Your task to perform on an android device: choose inbox layout in the gmail app Image 0: 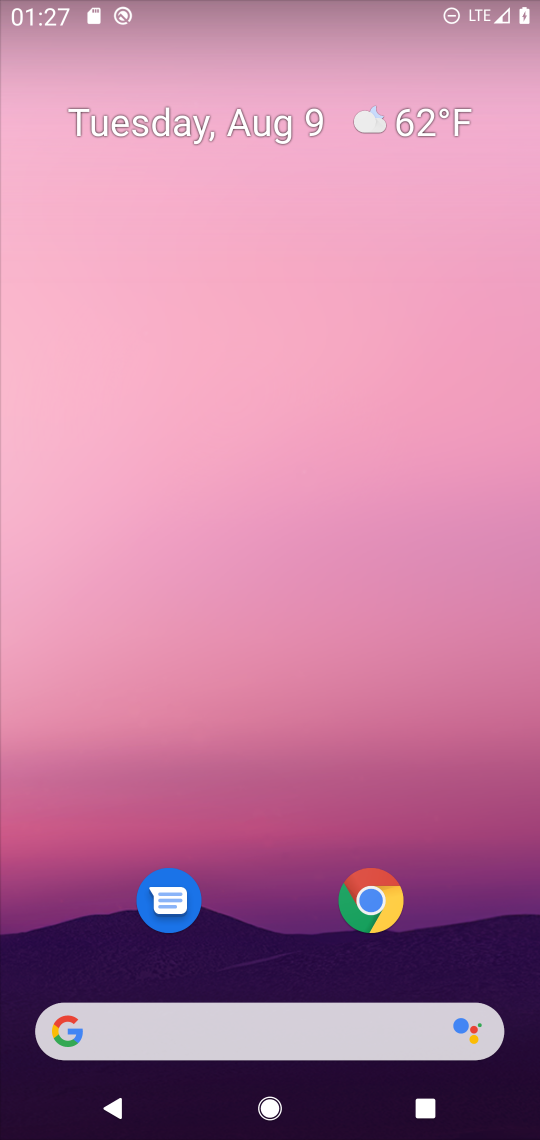
Step 0: press home button
Your task to perform on an android device: choose inbox layout in the gmail app Image 1: 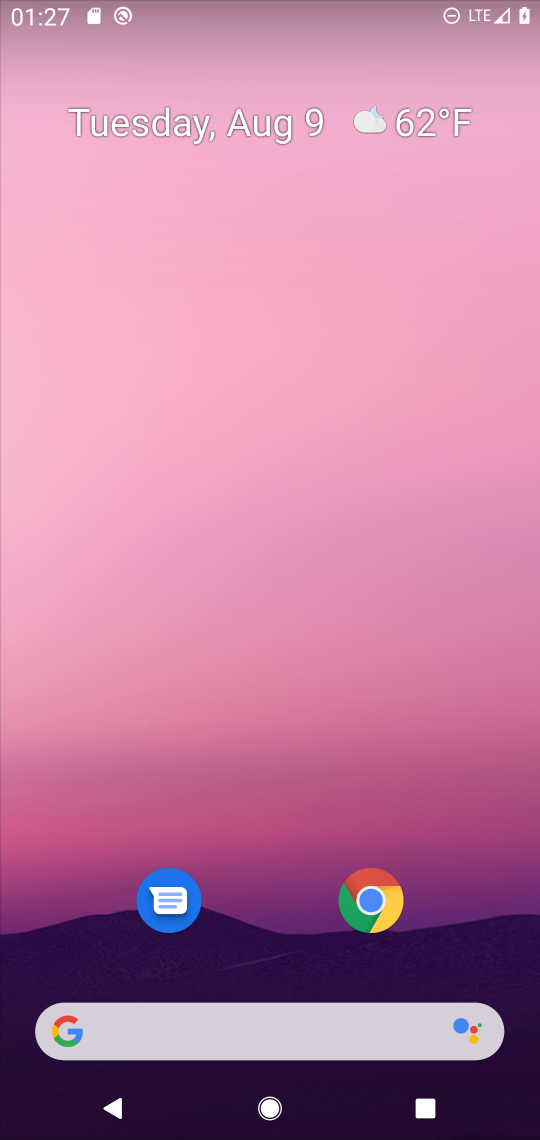
Step 1: drag from (263, 933) to (296, 136)
Your task to perform on an android device: choose inbox layout in the gmail app Image 2: 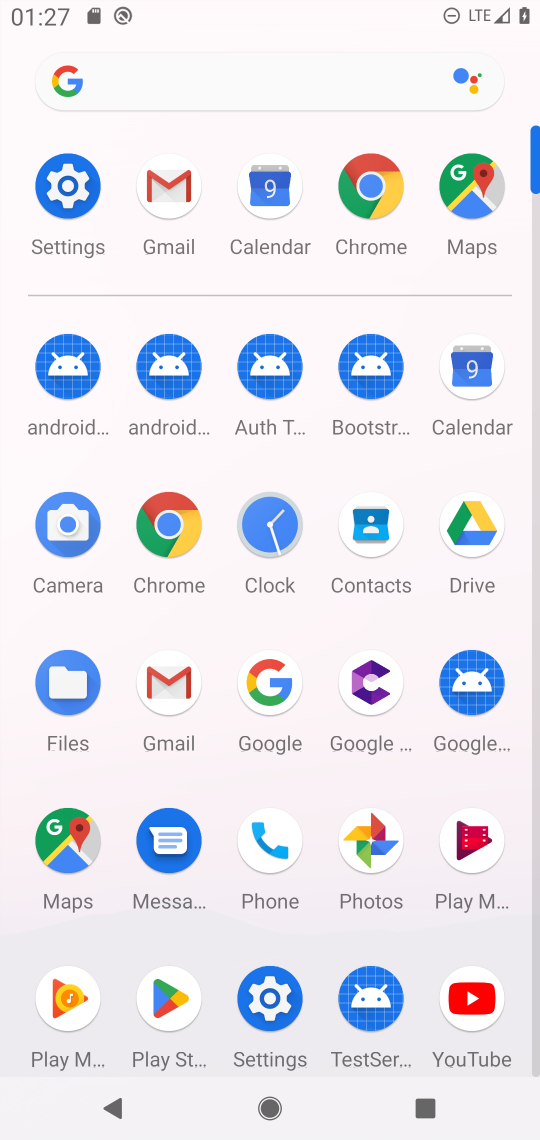
Step 2: click (173, 703)
Your task to perform on an android device: choose inbox layout in the gmail app Image 3: 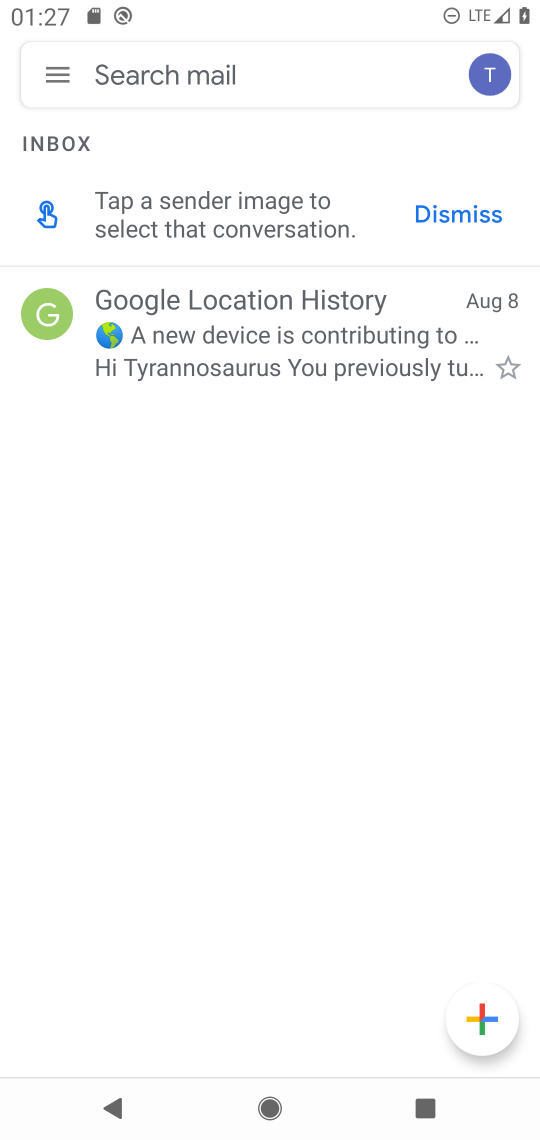
Step 3: click (57, 78)
Your task to perform on an android device: choose inbox layout in the gmail app Image 4: 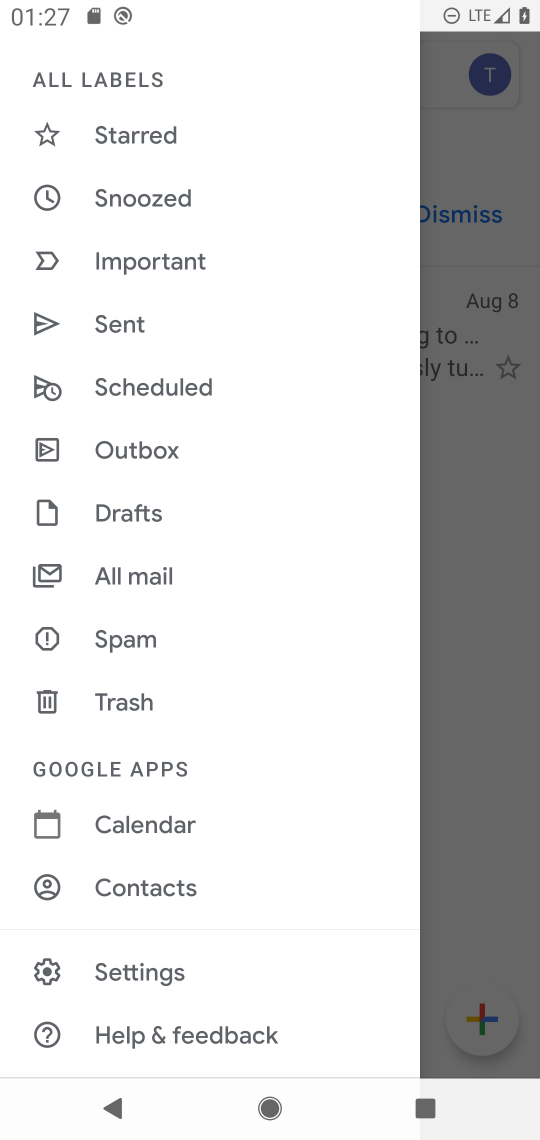
Step 4: click (149, 975)
Your task to perform on an android device: choose inbox layout in the gmail app Image 5: 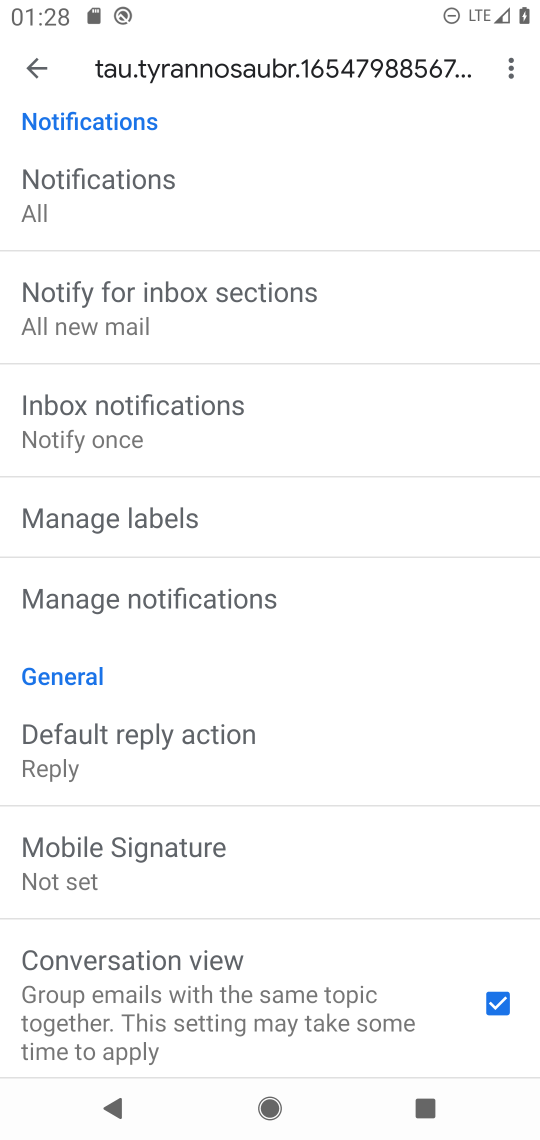
Step 5: drag from (350, 870) to (368, 508)
Your task to perform on an android device: choose inbox layout in the gmail app Image 6: 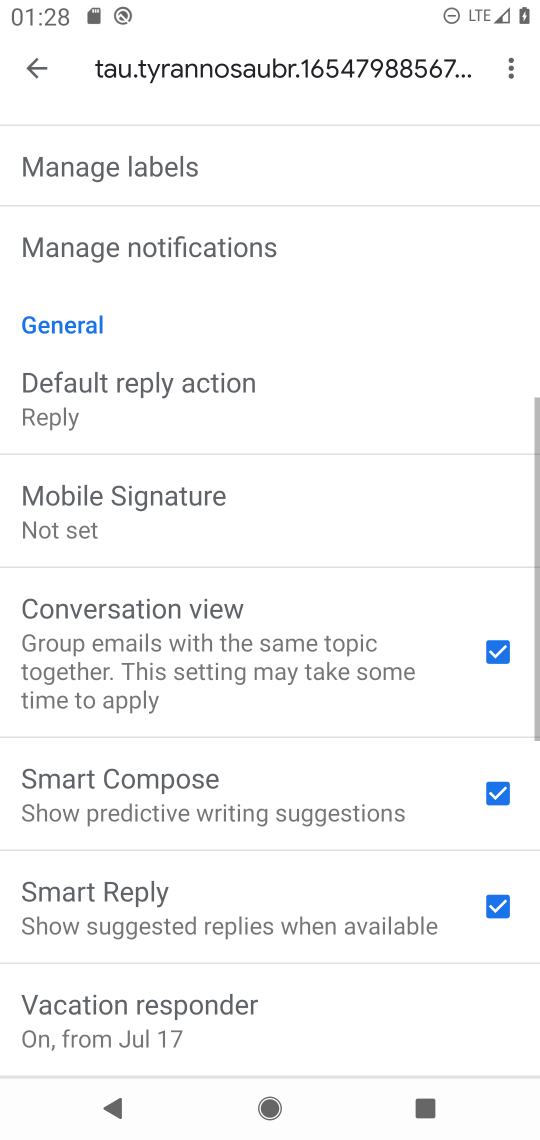
Step 6: drag from (400, 814) to (415, 490)
Your task to perform on an android device: choose inbox layout in the gmail app Image 7: 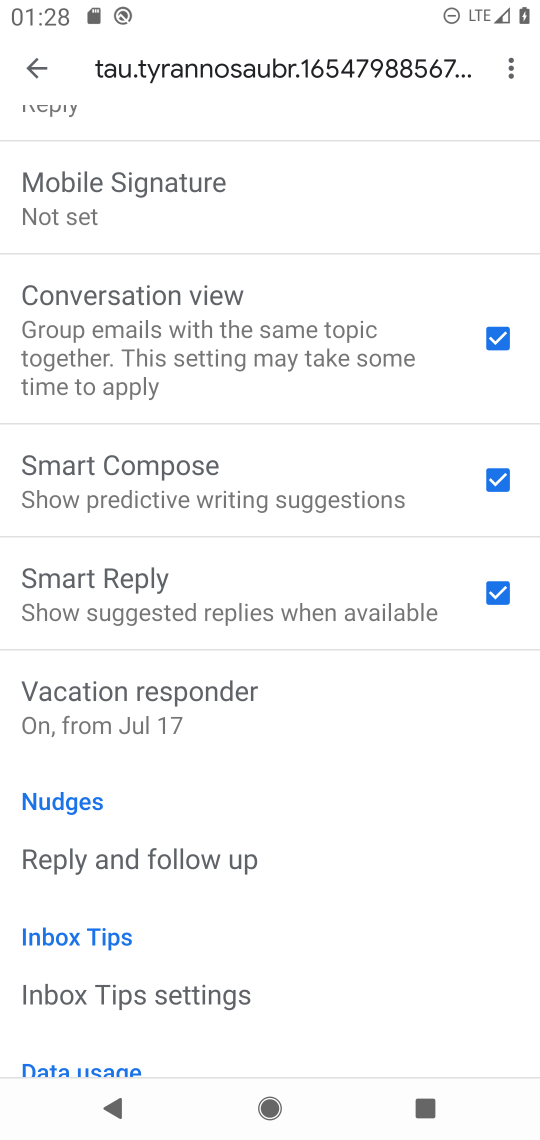
Step 7: drag from (419, 818) to (414, 434)
Your task to perform on an android device: choose inbox layout in the gmail app Image 8: 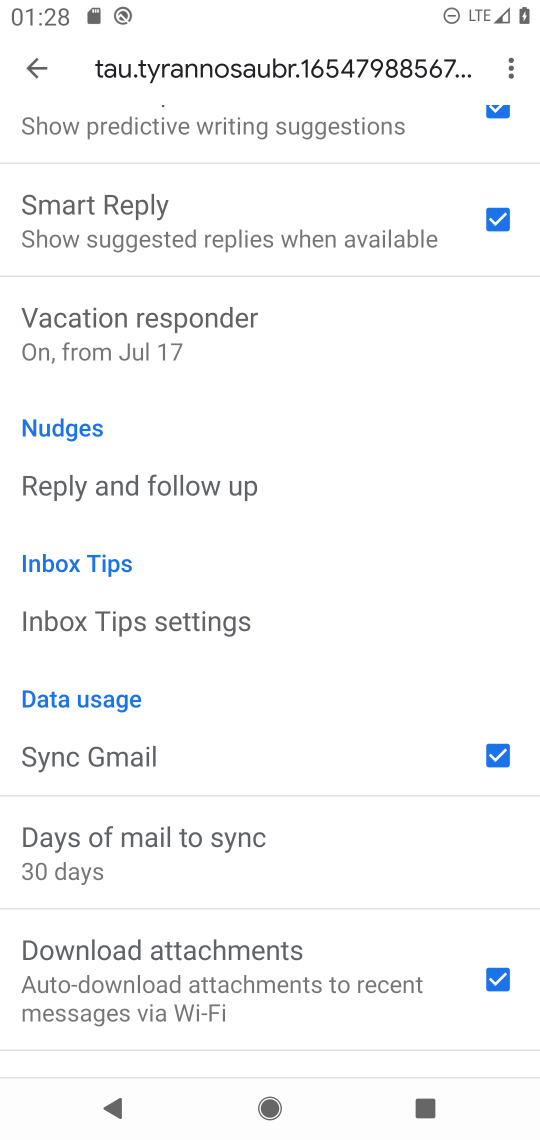
Step 8: drag from (363, 859) to (391, 450)
Your task to perform on an android device: choose inbox layout in the gmail app Image 9: 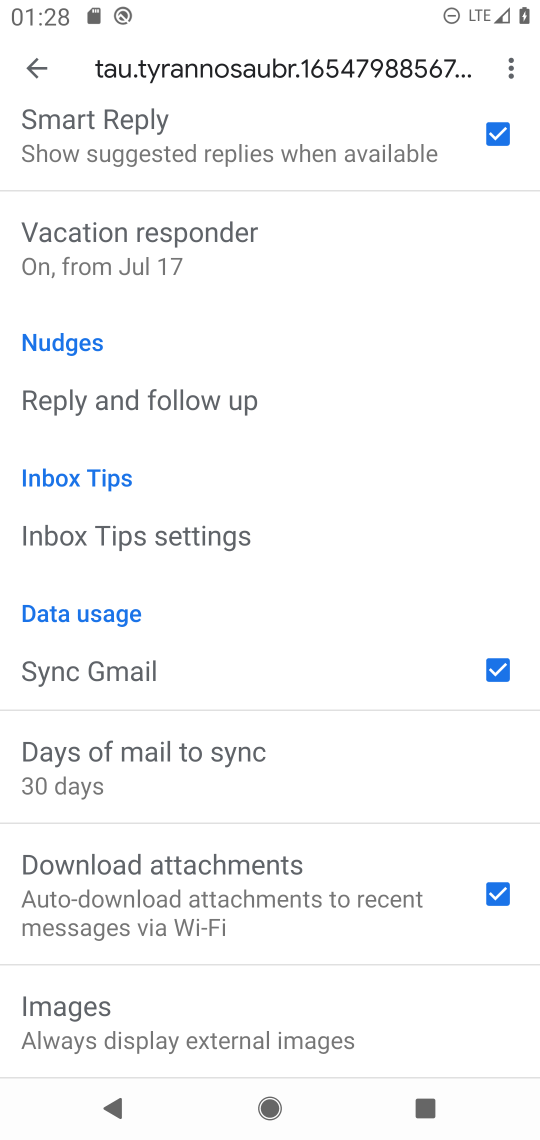
Step 9: drag from (411, 231) to (388, 618)
Your task to perform on an android device: choose inbox layout in the gmail app Image 10: 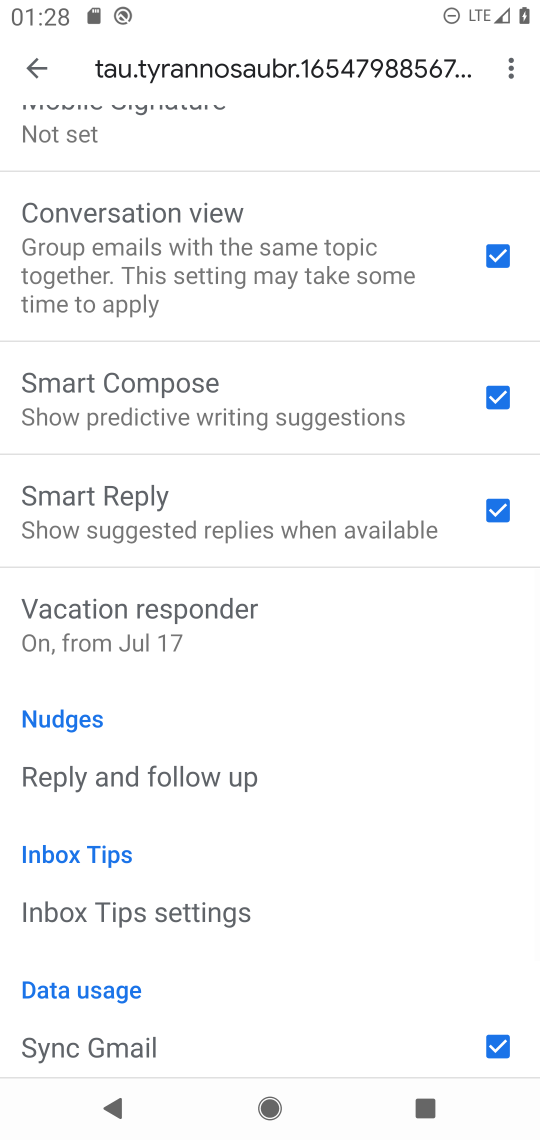
Step 10: drag from (410, 220) to (411, 652)
Your task to perform on an android device: choose inbox layout in the gmail app Image 11: 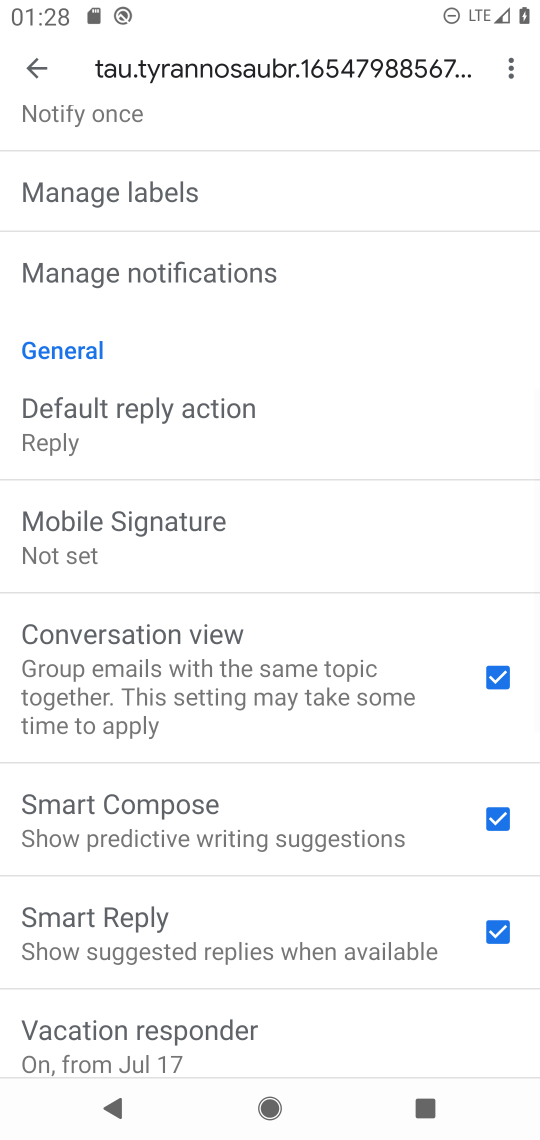
Step 11: drag from (397, 227) to (405, 660)
Your task to perform on an android device: choose inbox layout in the gmail app Image 12: 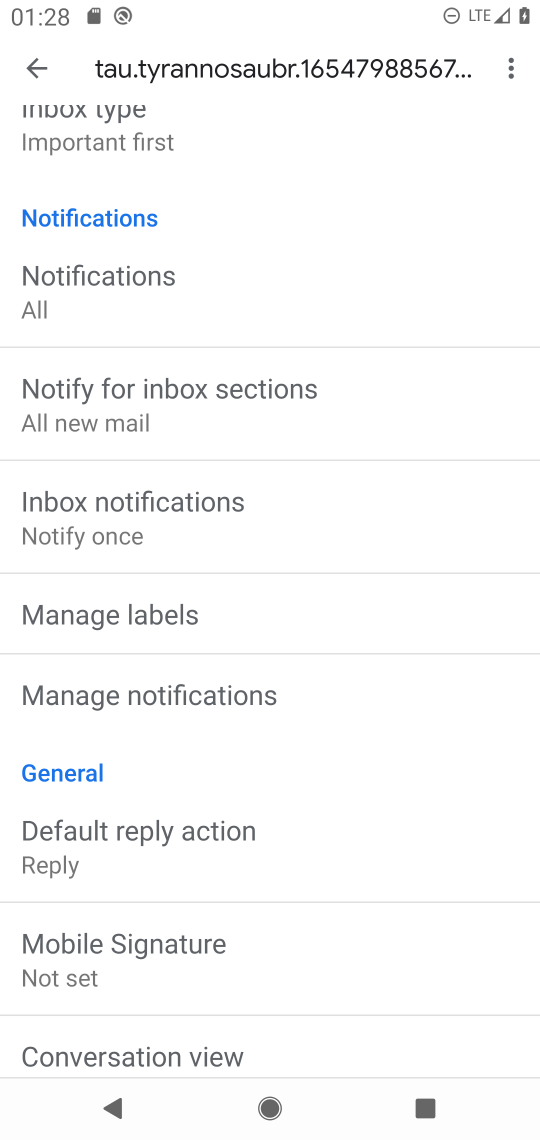
Step 12: drag from (392, 221) to (413, 649)
Your task to perform on an android device: choose inbox layout in the gmail app Image 13: 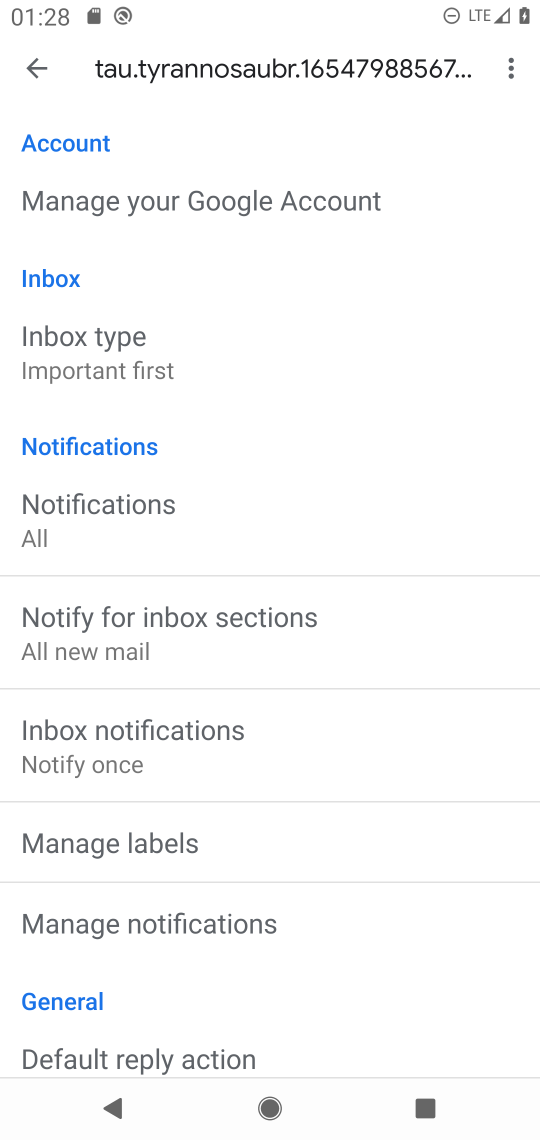
Step 13: drag from (452, 160) to (431, 654)
Your task to perform on an android device: choose inbox layout in the gmail app Image 14: 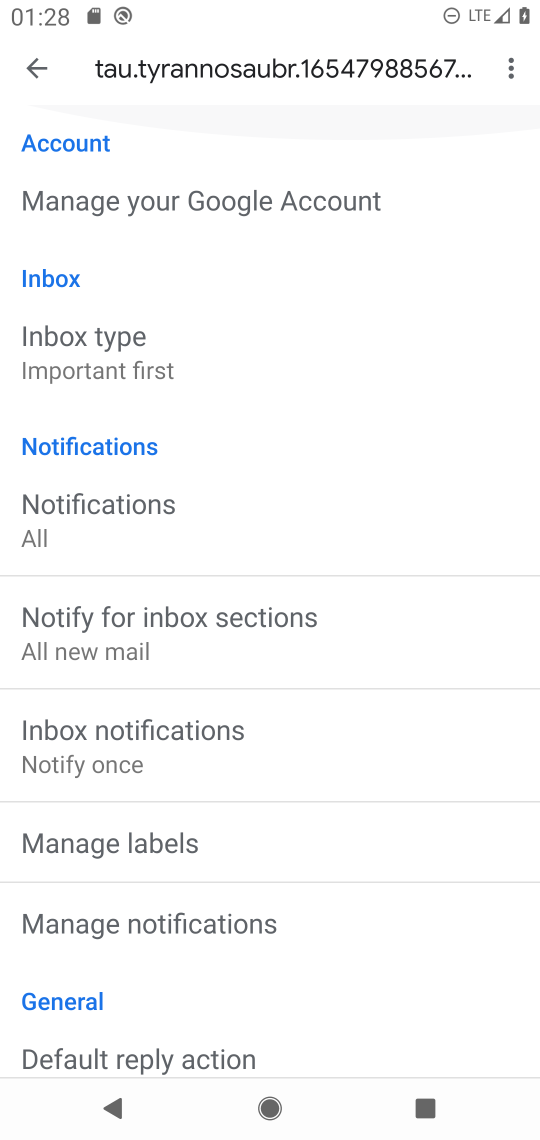
Step 14: click (151, 338)
Your task to perform on an android device: choose inbox layout in the gmail app Image 15: 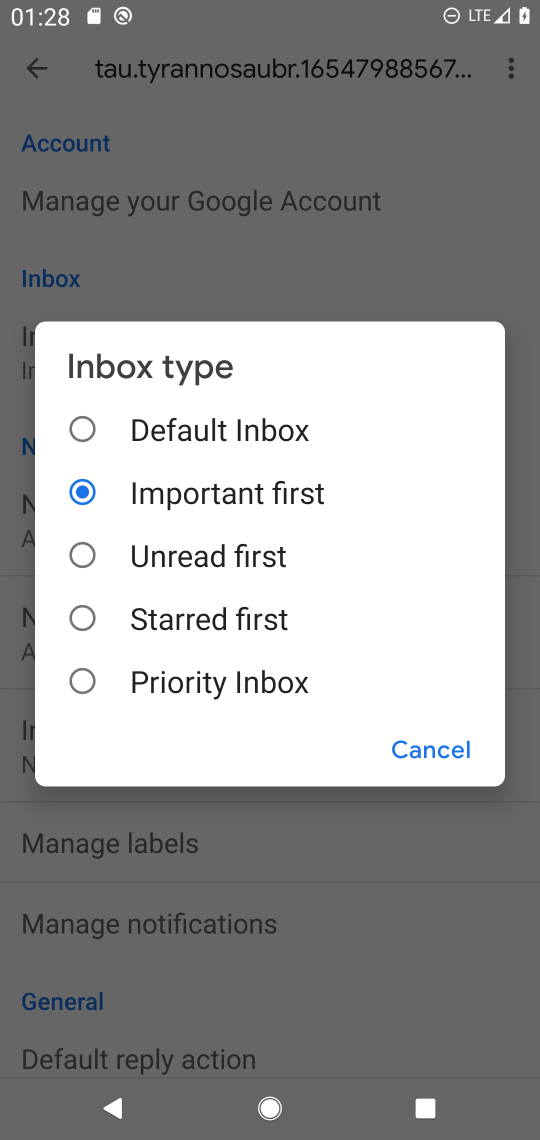
Step 15: click (265, 565)
Your task to perform on an android device: choose inbox layout in the gmail app Image 16: 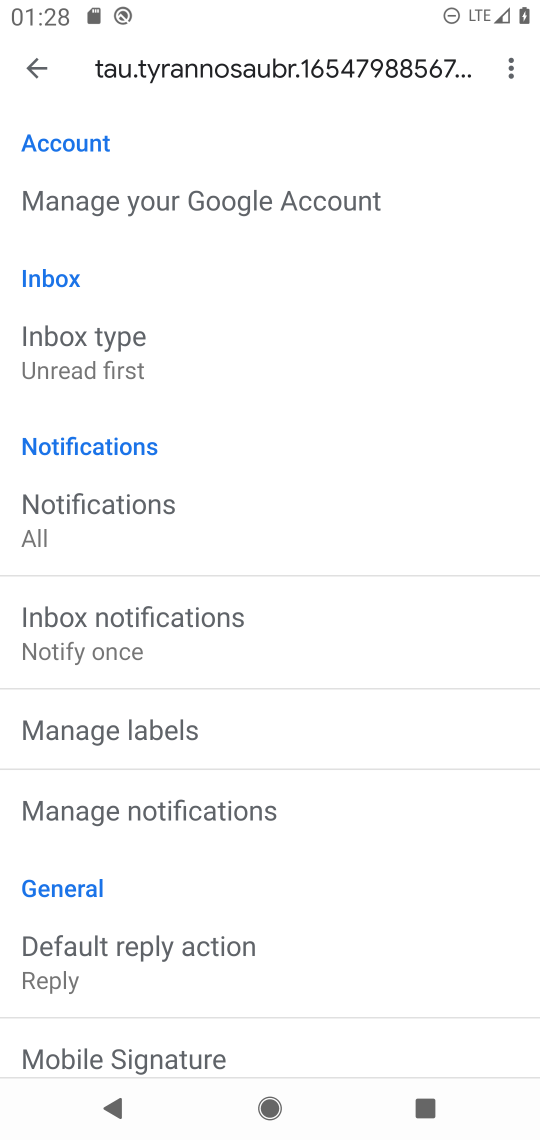
Step 16: task complete